Your task to perform on an android device: turn on the 24-hour format for clock Image 0: 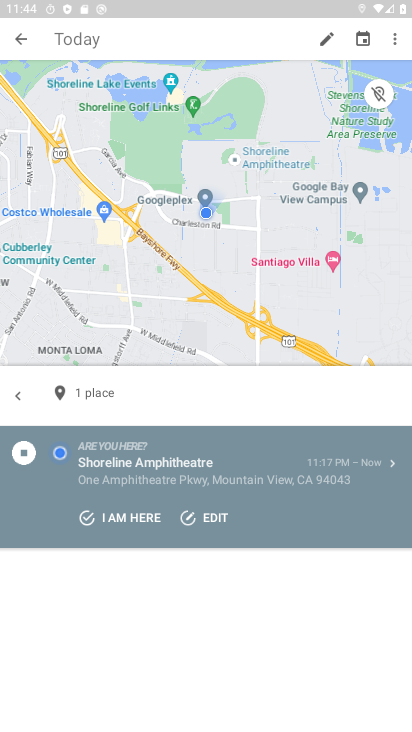
Step 0: press home button
Your task to perform on an android device: turn on the 24-hour format for clock Image 1: 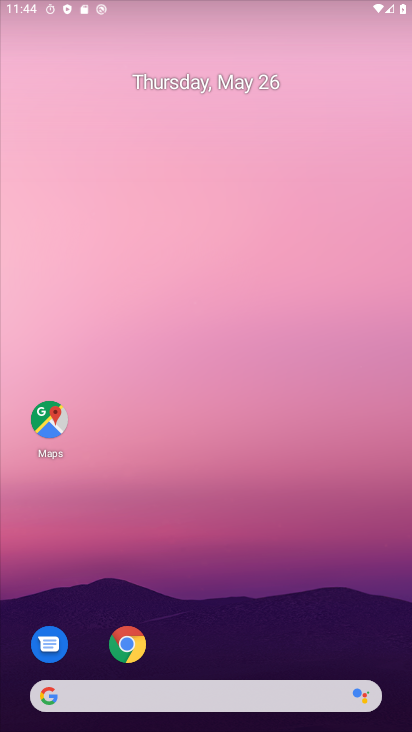
Step 1: drag from (288, 551) to (226, 0)
Your task to perform on an android device: turn on the 24-hour format for clock Image 2: 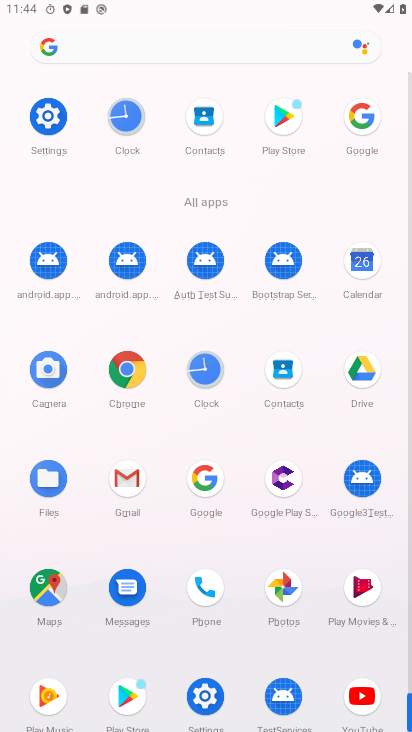
Step 2: click (209, 375)
Your task to perform on an android device: turn on the 24-hour format for clock Image 3: 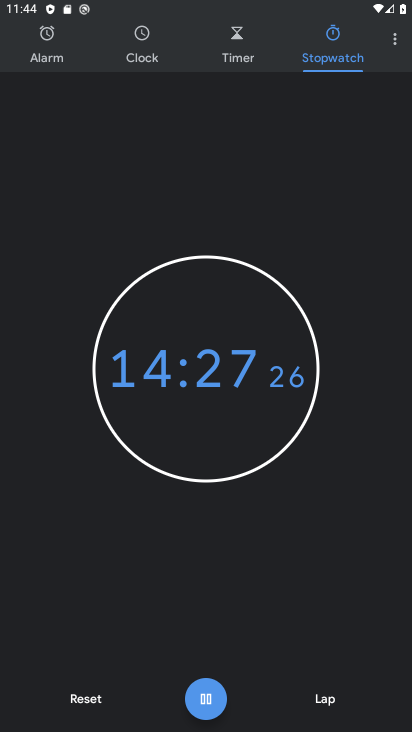
Step 3: click (393, 43)
Your task to perform on an android device: turn on the 24-hour format for clock Image 4: 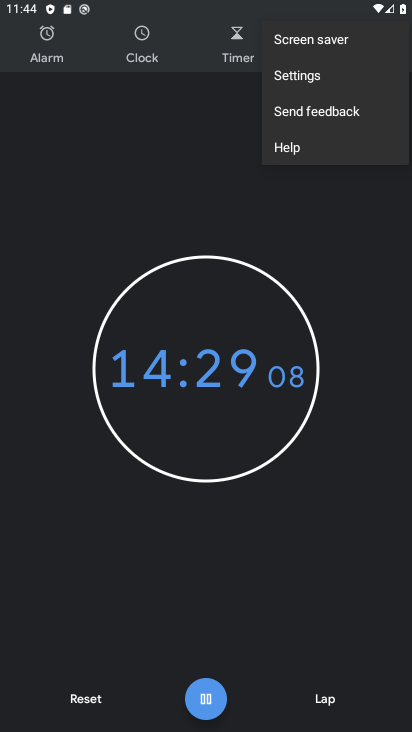
Step 4: click (331, 78)
Your task to perform on an android device: turn on the 24-hour format for clock Image 5: 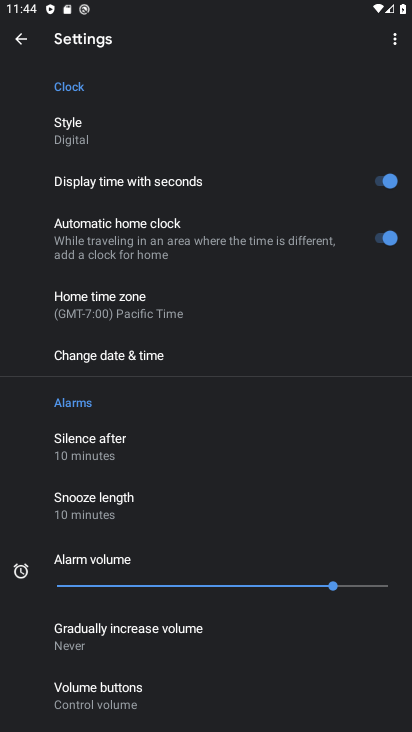
Step 5: drag from (242, 144) to (206, 704)
Your task to perform on an android device: turn on the 24-hour format for clock Image 6: 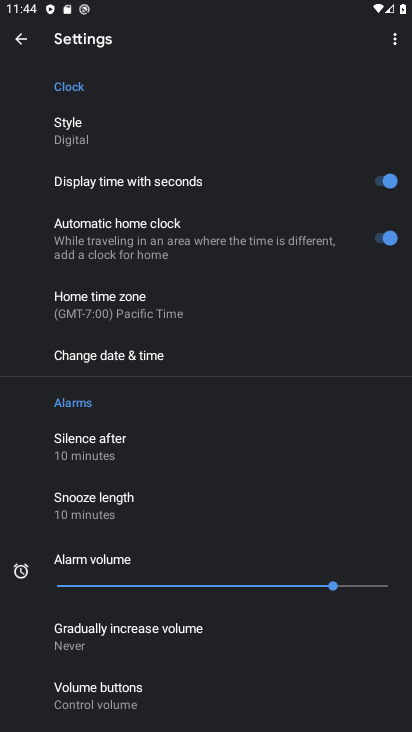
Step 6: drag from (166, 230) to (159, 500)
Your task to perform on an android device: turn on the 24-hour format for clock Image 7: 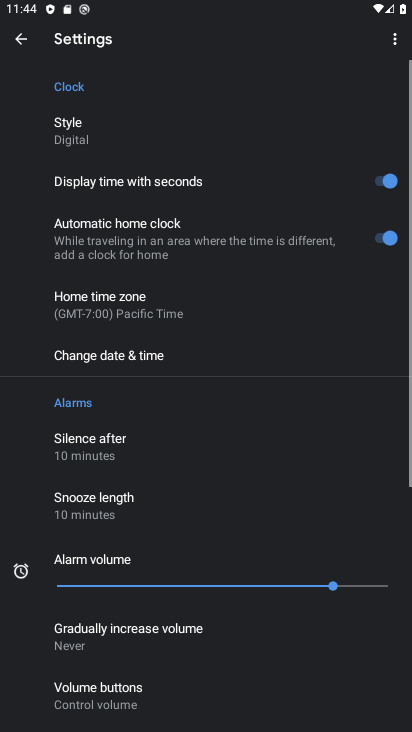
Step 7: click (135, 352)
Your task to perform on an android device: turn on the 24-hour format for clock Image 8: 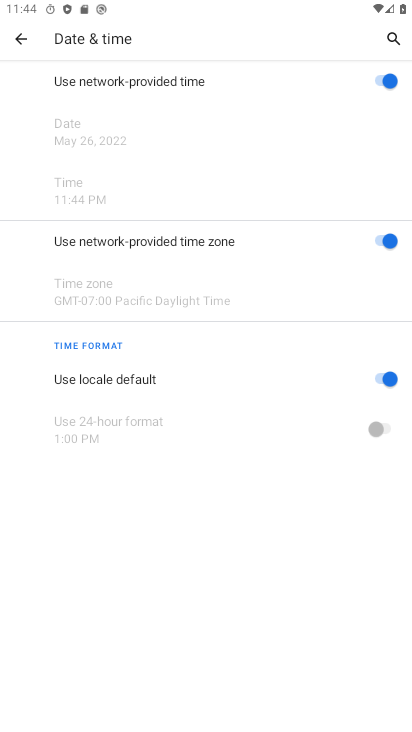
Step 8: click (378, 378)
Your task to perform on an android device: turn on the 24-hour format for clock Image 9: 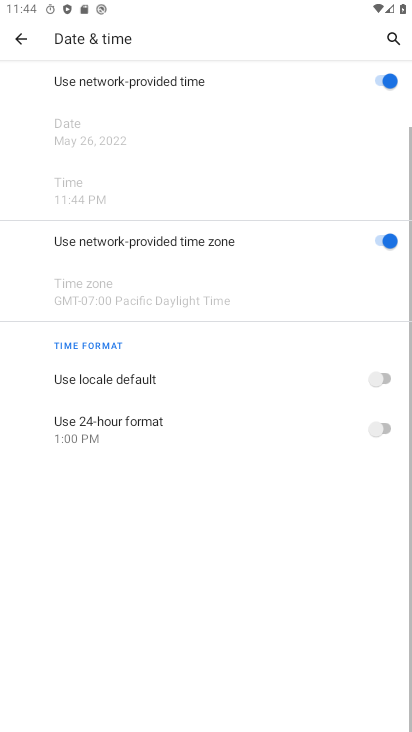
Step 9: click (379, 426)
Your task to perform on an android device: turn on the 24-hour format for clock Image 10: 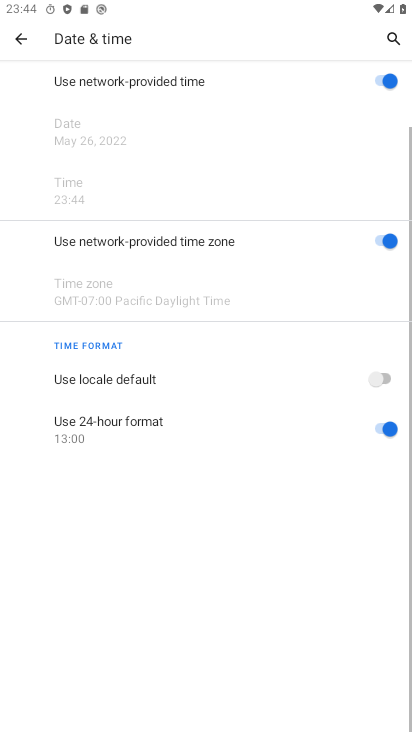
Step 10: task complete